Your task to perform on an android device: toggle translation in the chrome app Image 0: 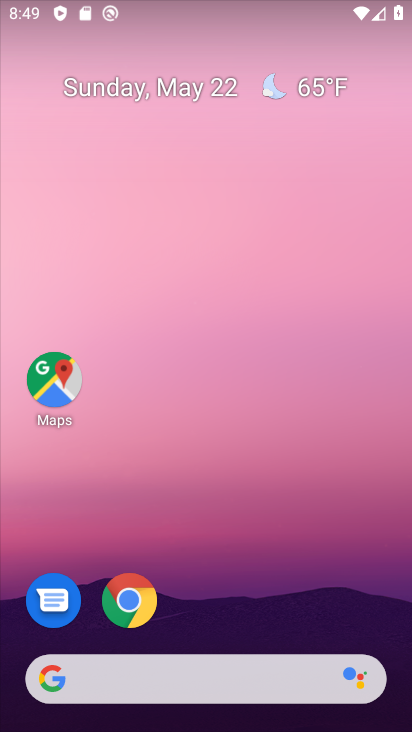
Step 0: click (127, 608)
Your task to perform on an android device: toggle translation in the chrome app Image 1: 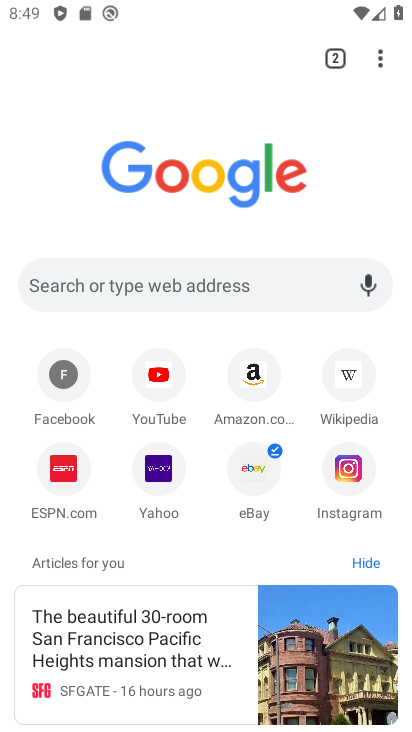
Step 1: click (385, 64)
Your task to perform on an android device: toggle translation in the chrome app Image 2: 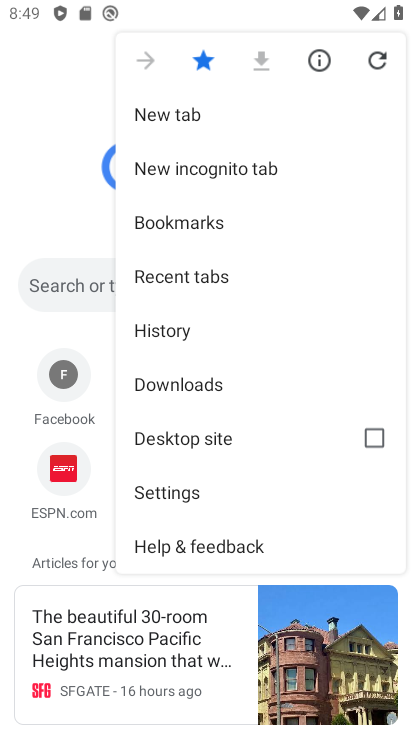
Step 2: click (173, 503)
Your task to perform on an android device: toggle translation in the chrome app Image 3: 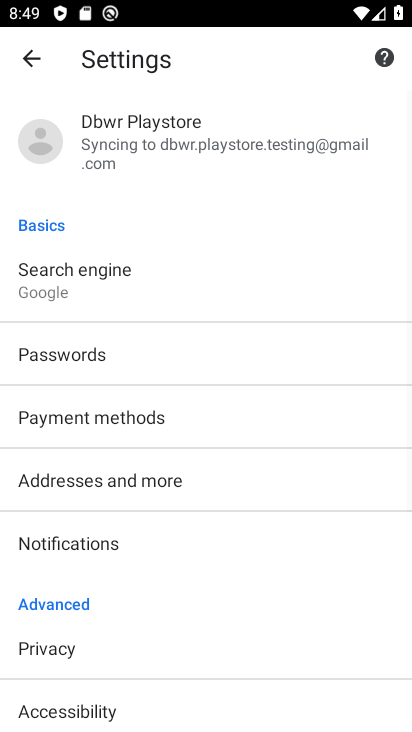
Step 3: drag from (144, 651) to (160, 389)
Your task to perform on an android device: toggle translation in the chrome app Image 4: 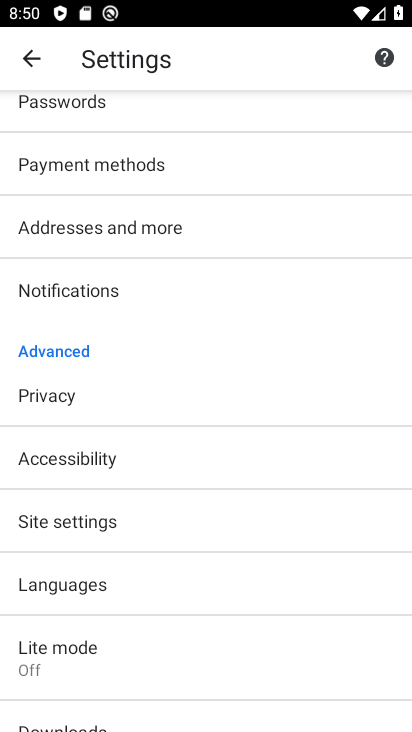
Step 4: click (100, 596)
Your task to perform on an android device: toggle translation in the chrome app Image 5: 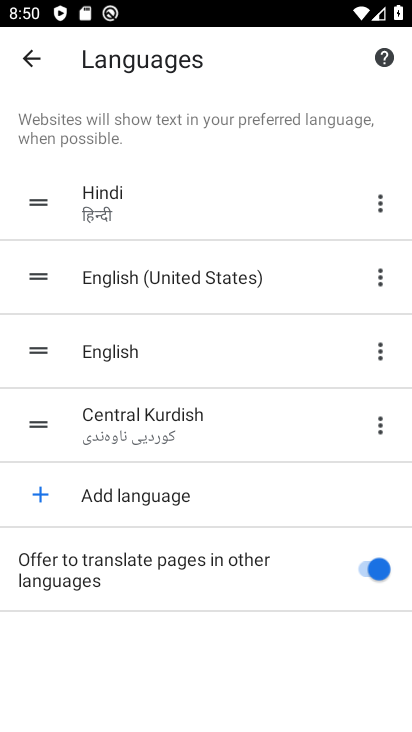
Step 5: click (359, 576)
Your task to perform on an android device: toggle translation in the chrome app Image 6: 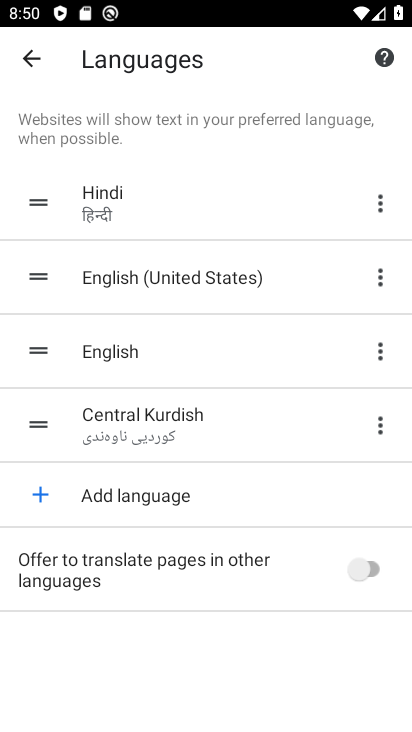
Step 6: task complete